Your task to perform on an android device: Do I have any events today? Image 0: 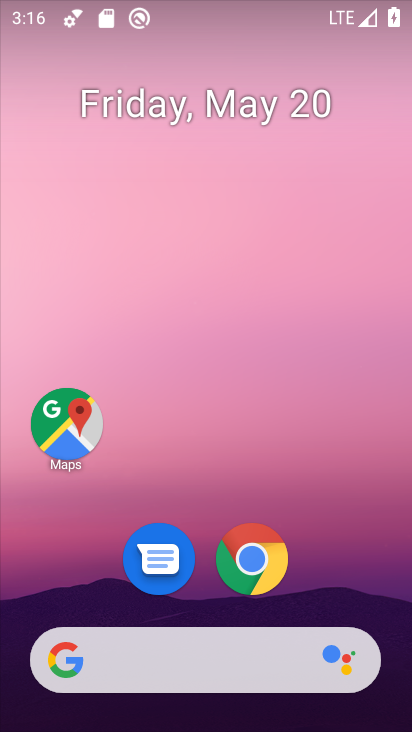
Step 0: drag from (207, 470) to (172, 35)
Your task to perform on an android device: Do I have any events today? Image 1: 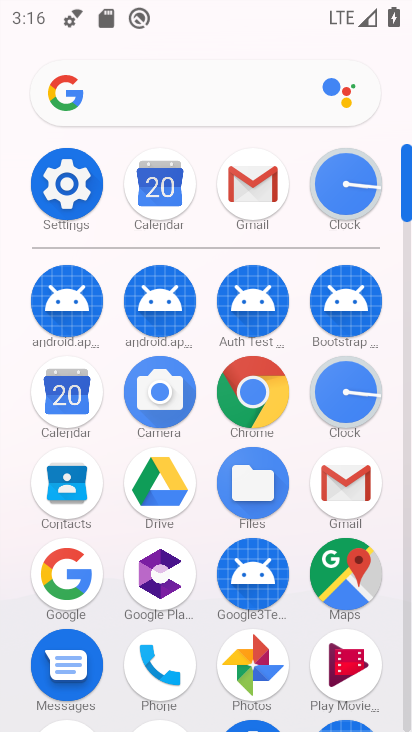
Step 1: click (162, 196)
Your task to perform on an android device: Do I have any events today? Image 2: 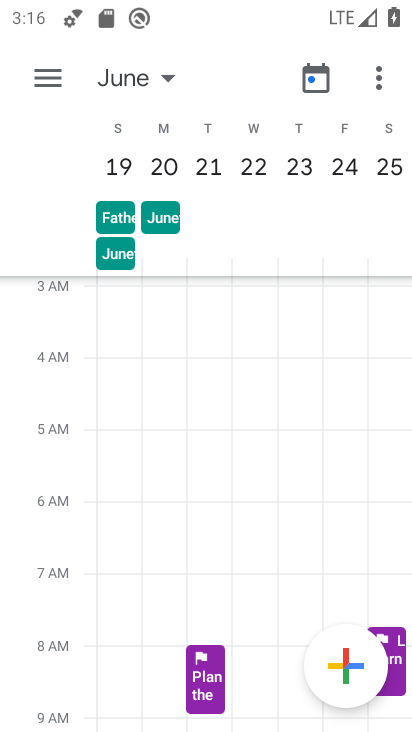
Step 2: drag from (136, 354) to (408, 362)
Your task to perform on an android device: Do I have any events today? Image 3: 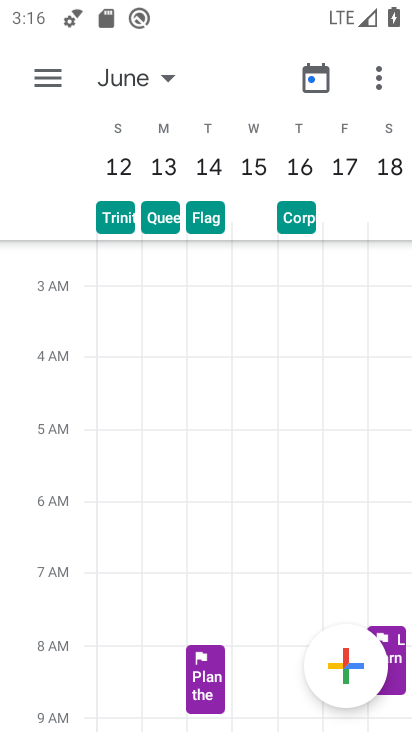
Step 3: drag from (130, 392) to (410, 408)
Your task to perform on an android device: Do I have any events today? Image 4: 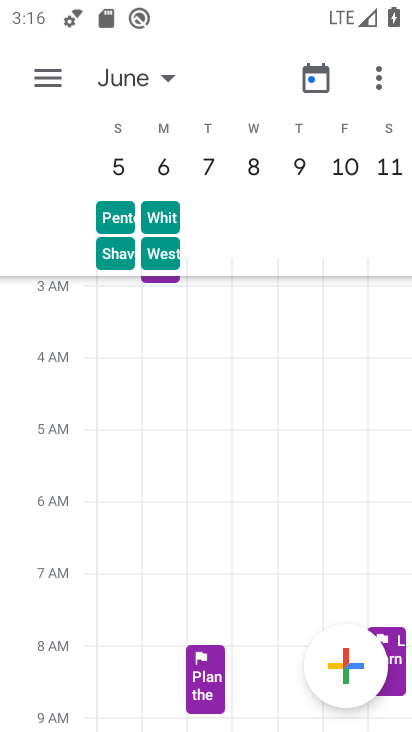
Step 4: drag from (109, 393) to (391, 402)
Your task to perform on an android device: Do I have any events today? Image 5: 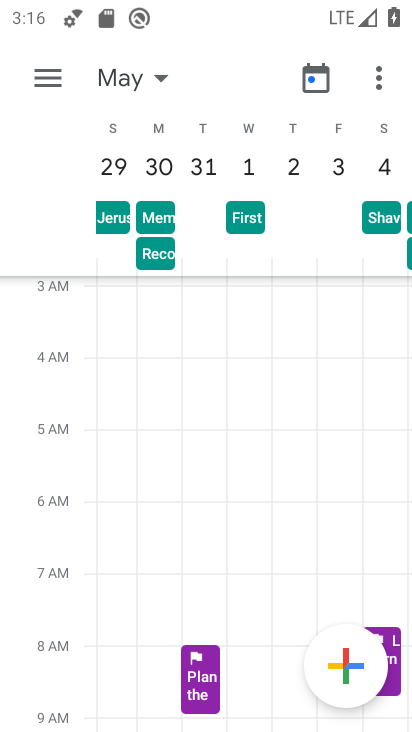
Step 5: drag from (129, 376) to (402, 411)
Your task to perform on an android device: Do I have any events today? Image 6: 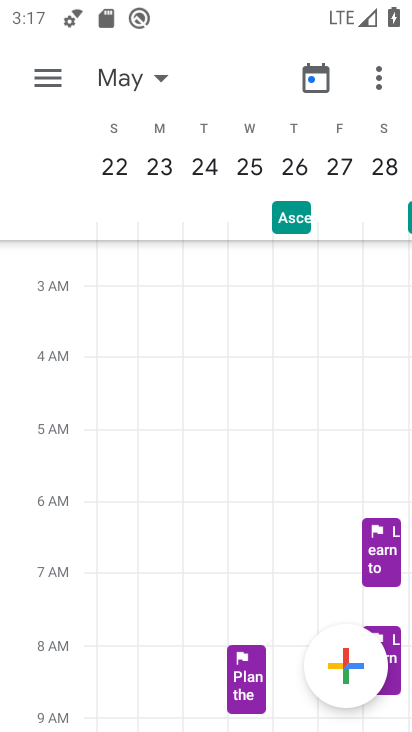
Step 6: drag from (153, 388) to (411, 389)
Your task to perform on an android device: Do I have any events today? Image 7: 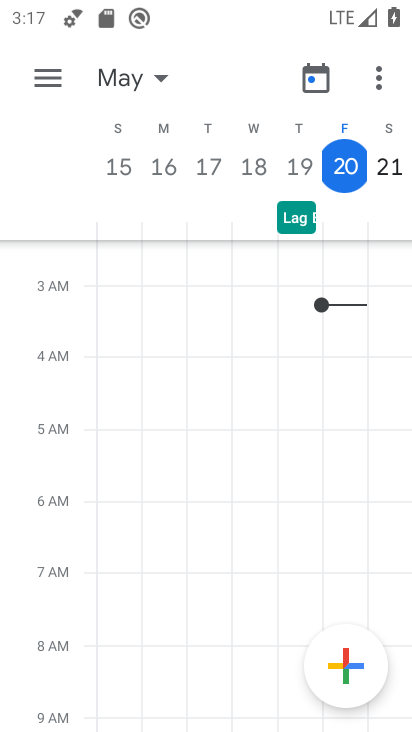
Step 7: click (337, 165)
Your task to perform on an android device: Do I have any events today? Image 8: 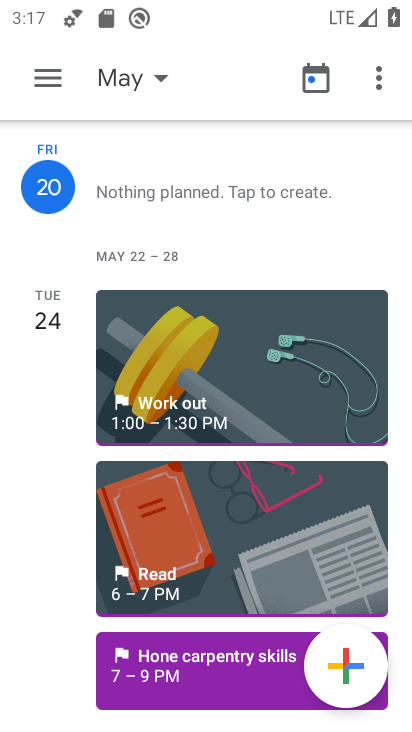
Step 8: task complete